Your task to perform on an android device: turn on priority inbox in the gmail app Image 0: 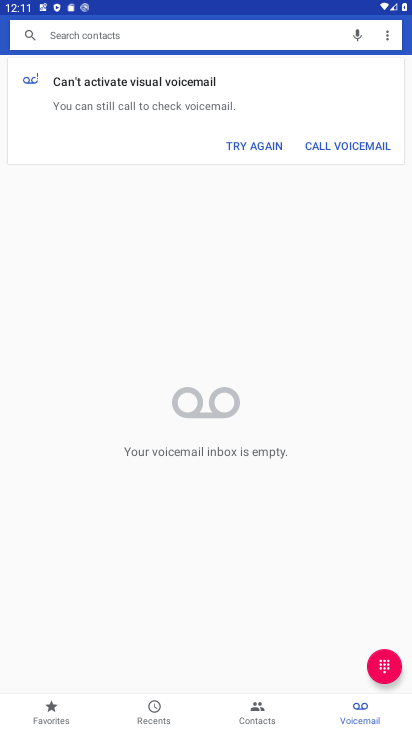
Step 0: press home button
Your task to perform on an android device: turn on priority inbox in the gmail app Image 1: 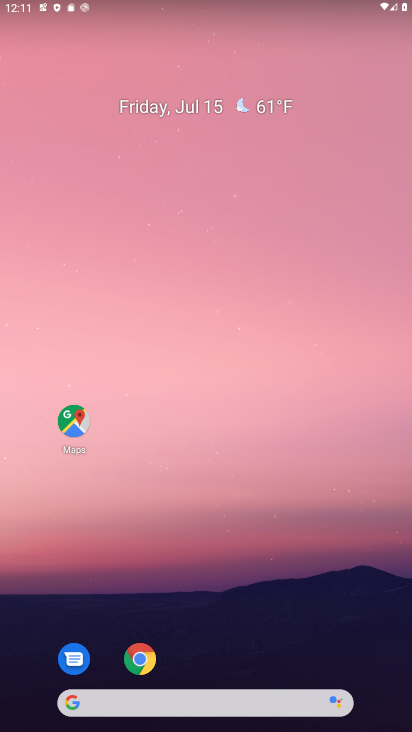
Step 1: drag from (230, 702) to (217, 185)
Your task to perform on an android device: turn on priority inbox in the gmail app Image 2: 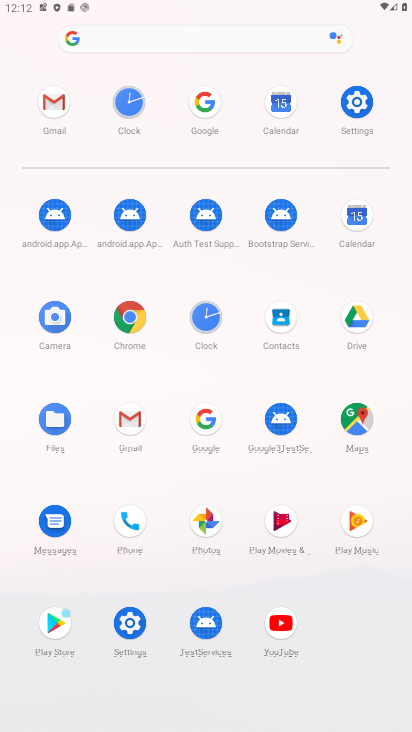
Step 2: click (130, 418)
Your task to perform on an android device: turn on priority inbox in the gmail app Image 3: 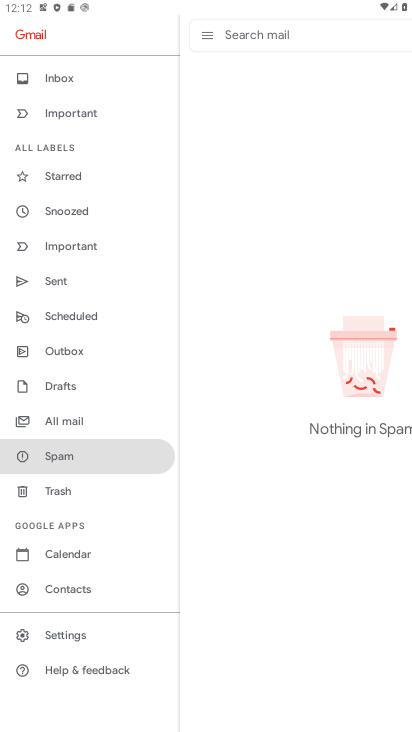
Step 3: click (64, 634)
Your task to perform on an android device: turn on priority inbox in the gmail app Image 4: 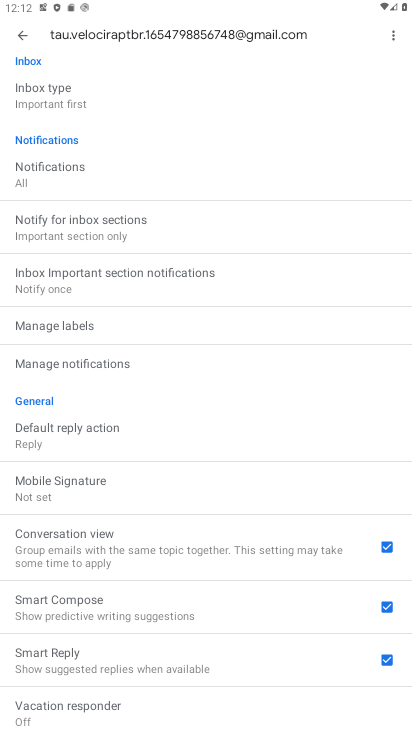
Step 4: click (74, 108)
Your task to perform on an android device: turn on priority inbox in the gmail app Image 5: 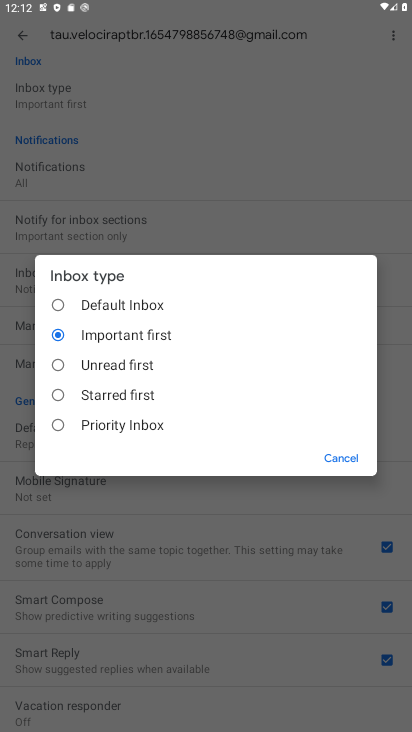
Step 5: click (56, 424)
Your task to perform on an android device: turn on priority inbox in the gmail app Image 6: 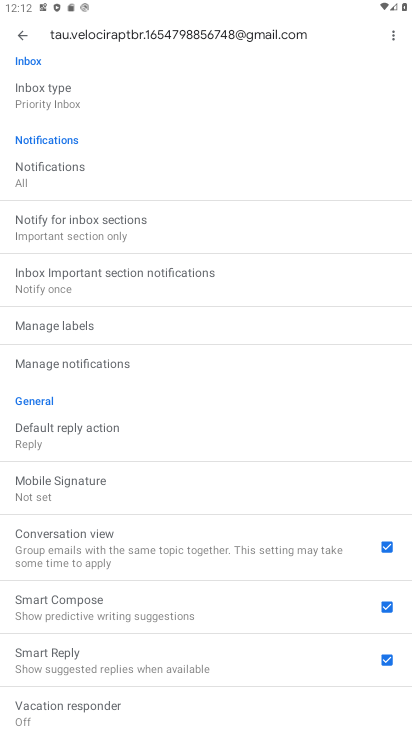
Step 6: task complete